Your task to perform on an android device: Turn on the flashlight Image 0: 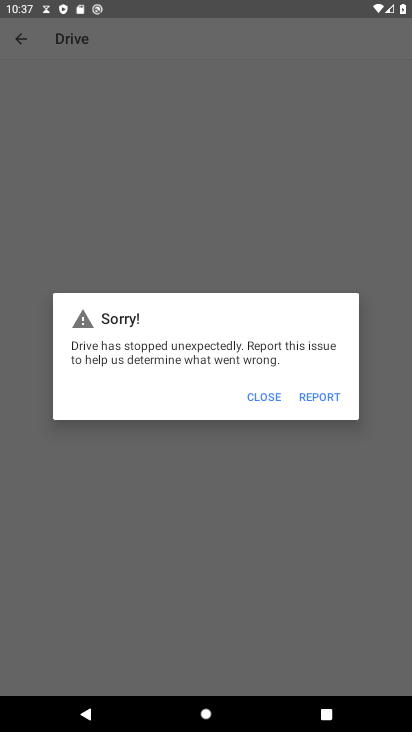
Step 0: press home button
Your task to perform on an android device: Turn on the flashlight Image 1: 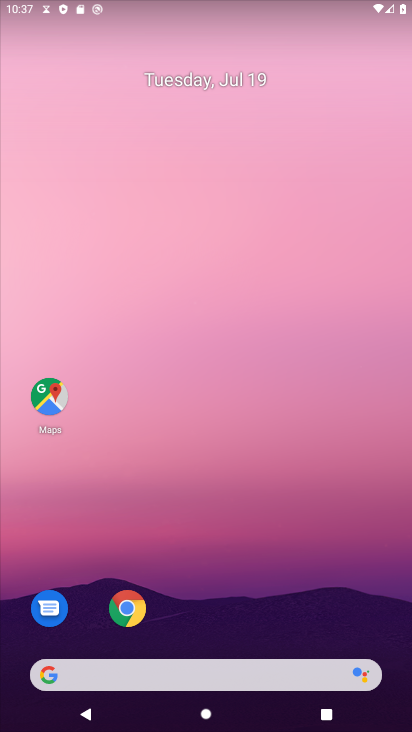
Step 1: drag from (223, 619) to (288, 37)
Your task to perform on an android device: Turn on the flashlight Image 2: 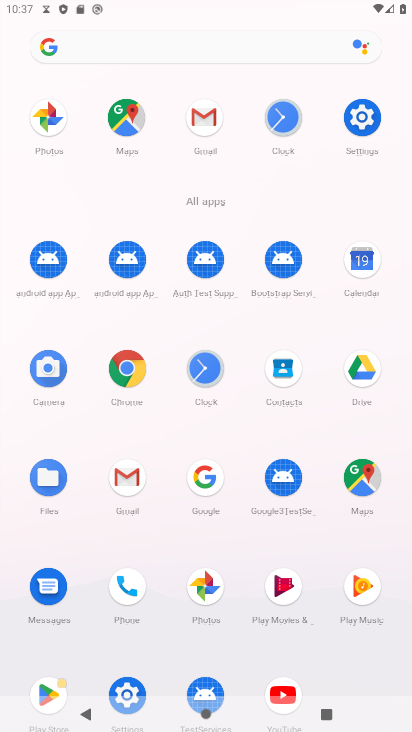
Step 2: click (365, 118)
Your task to perform on an android device: Turn on the flashlight Image 3: 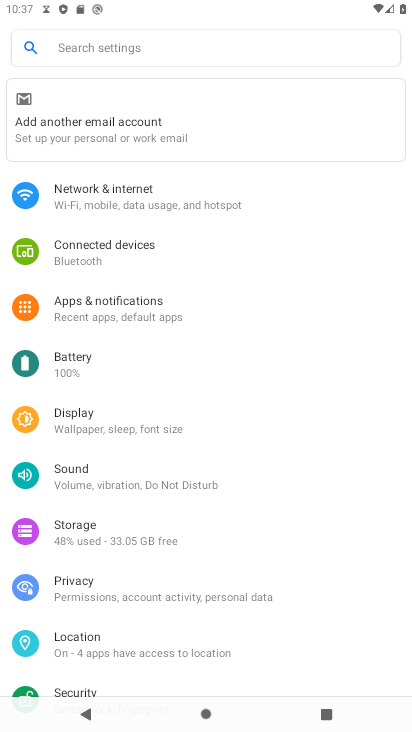
Step 3: task complete